Your task to perform on an android device: Open the map Image 0: 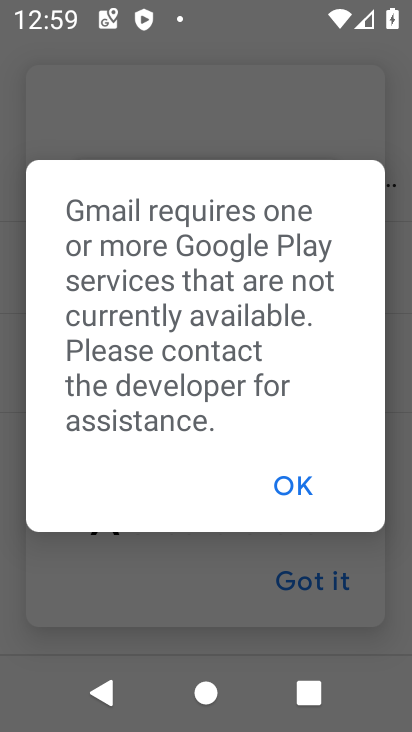
Step 0: press home button
Your task to perform on an android device: Open the map Image 1: 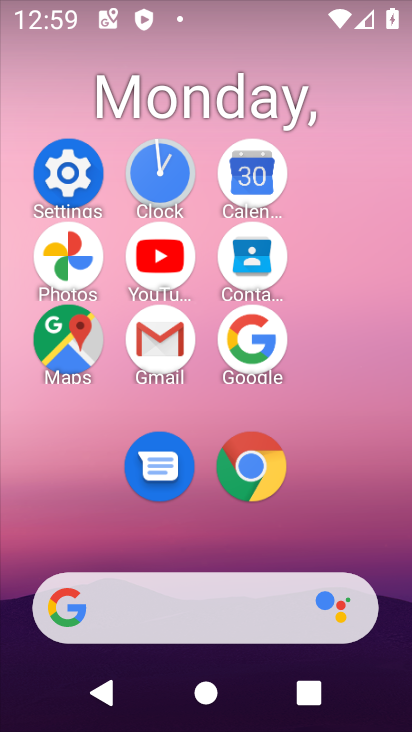
Step 1: click (81, 356)
Your task to perform on an android device: Open the map Image 2: 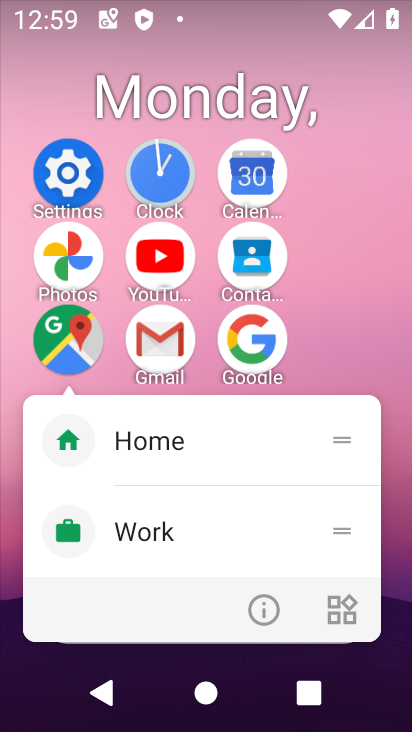
Step 2: click (61, 338)
Your task to perform on an android device: Open the map Image 3: 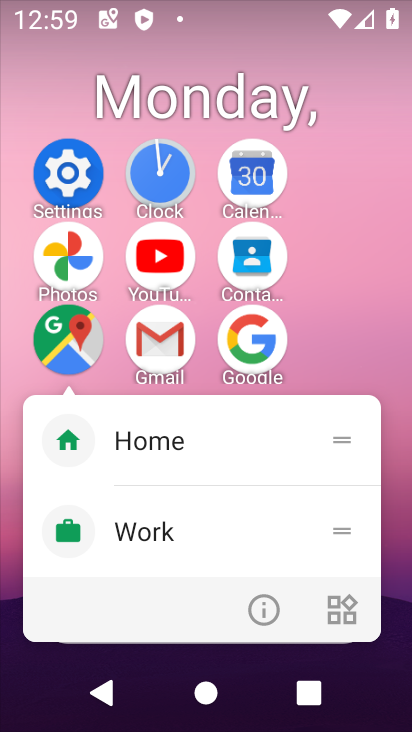
Step 3: click (86, 338)
Your task to perform on an android device: Open the map Image 4: 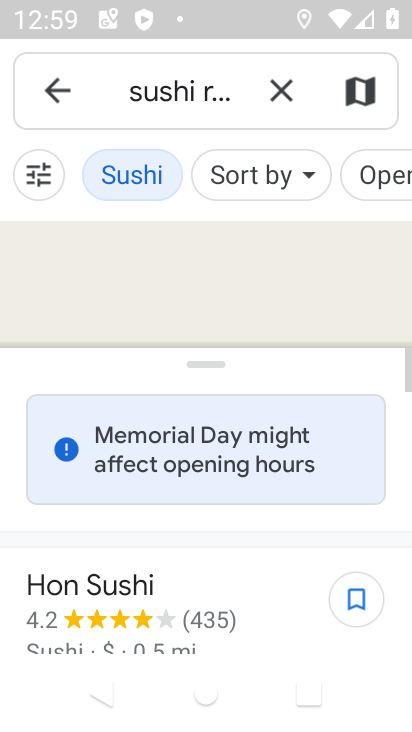
Step 4: task complete